Your task to perform on an android device: toggle pop-ups in chrome Image 0: 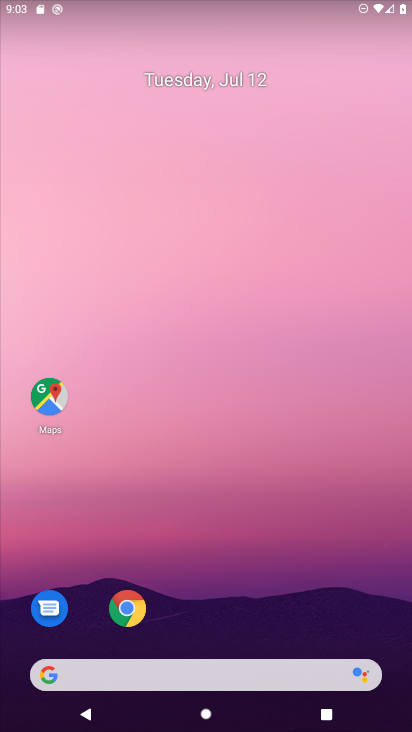
Step 0: click (133, 614)
Your task to perform on an android device: toggle pop-ups in chrome Image 1: 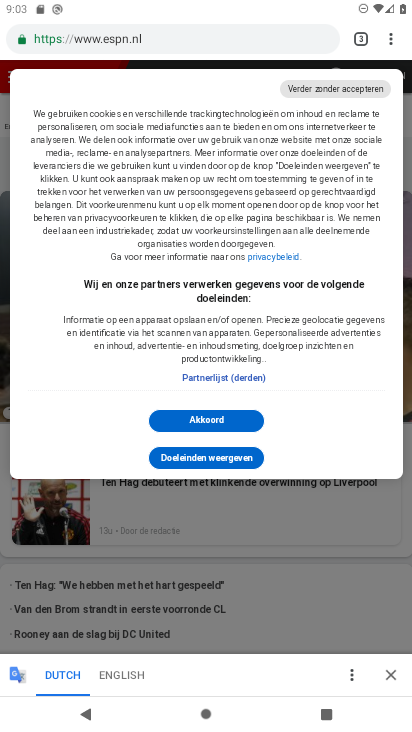
Step 1: click (397, 29)
Your task to perform on an android device: toggle pop-ups in chrome Image 2: 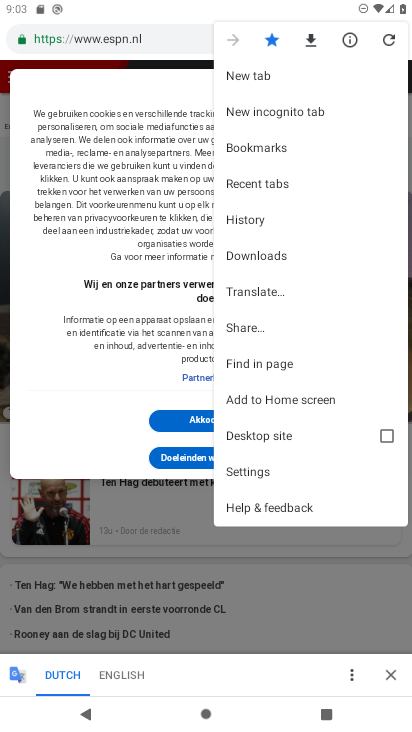
Step 2: click (297, 471)
Your task to perform on an android device: toggle pop-ups in chrome Image 3: 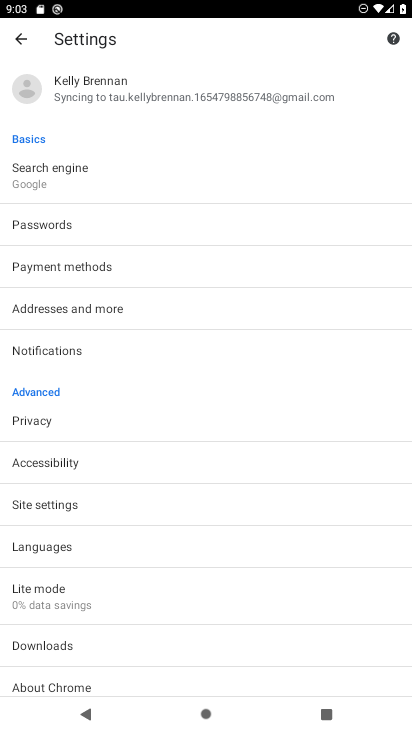
Step 3: drag from (122, 674) to (164, 270)
Your task to perform on an android device: toggle pop-ups in chrome Image 4: 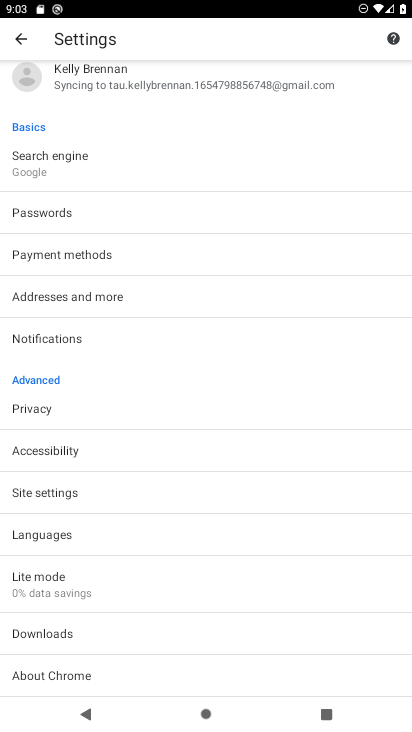
Step 4: click (96, 492)
Your task to perform on an android device: toggle pop-ups in chrome Image 5: 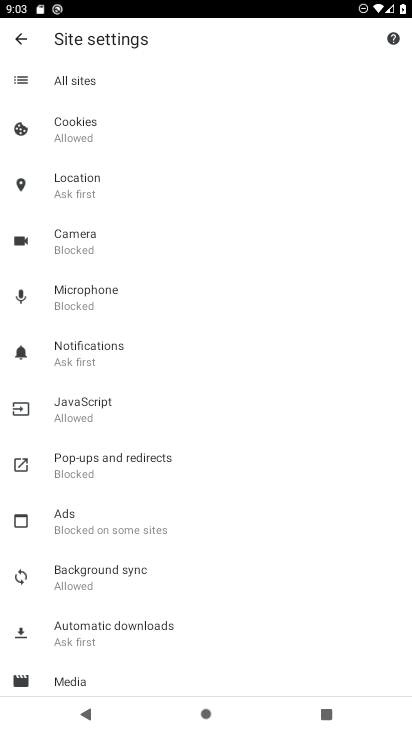
Step 5: click (170, 467)
Your task to perform on an android device: toggle pop-ups in chrome Image 6: 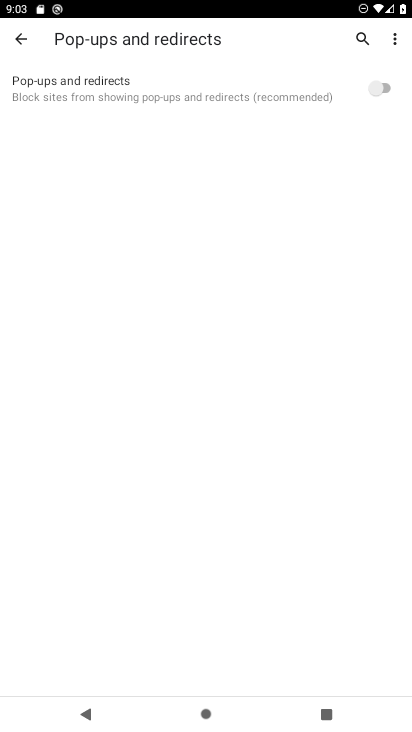
Step 6: click (389, 81)
Your task to perform on an android device: toggle pop-ups in chrome Image 7: 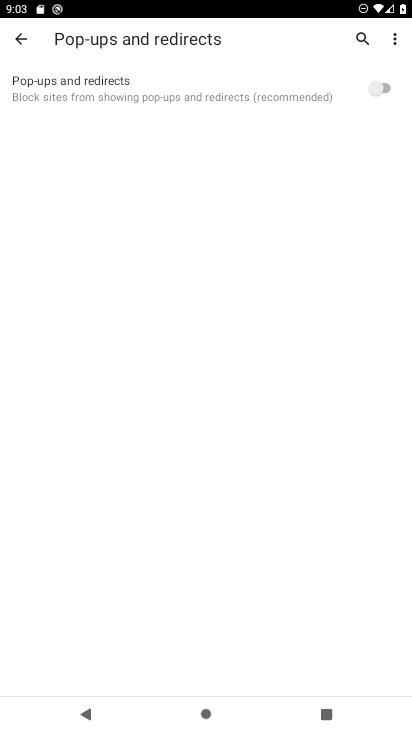
Step 7: click (389, 81)
Your task to perform on an android device: toggle pop-ups in chrome Image 8: 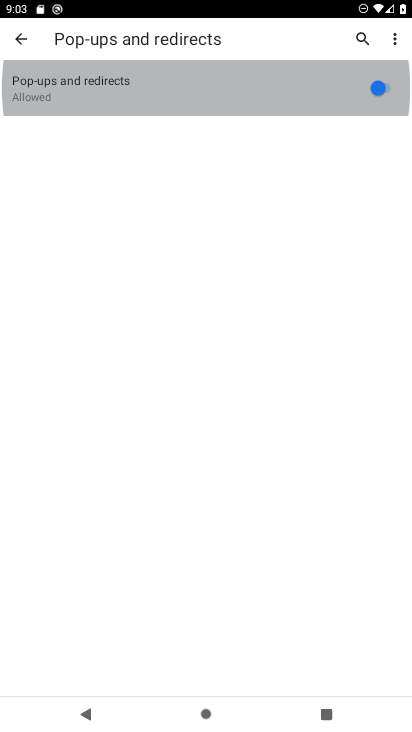
Step 8: click (389, 81)
Your task to perform on an android device: toggle pop-ups in chrome Image 9: 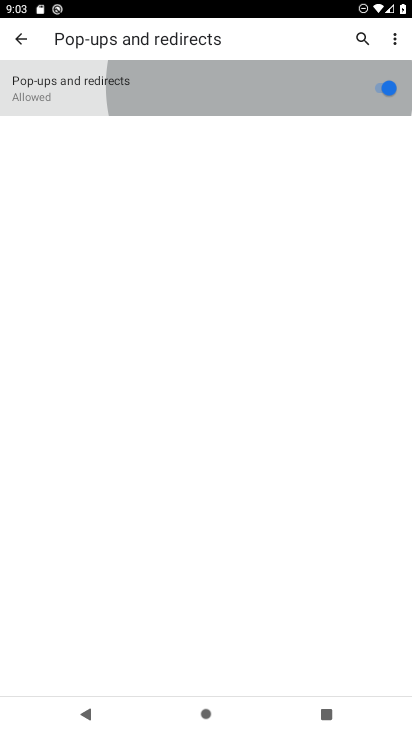
Step 9: click (389, 81)
Your task to perform on an android device: toggle pop-ups in chrome Image 10: 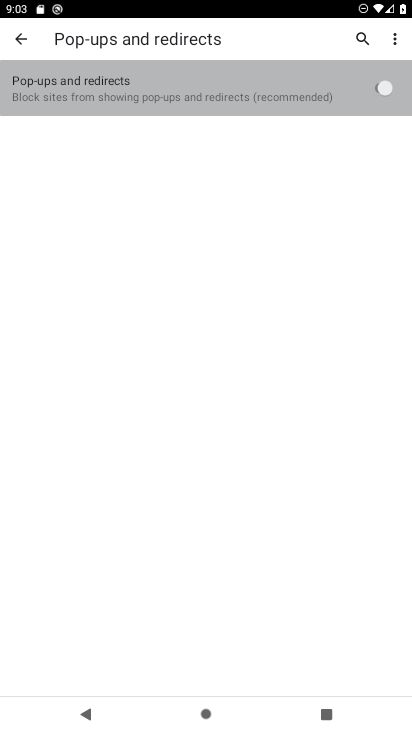
Step 10: click (389, 81)
Your task to perform on an android device: toggle pop-ups in chrome Image 11: 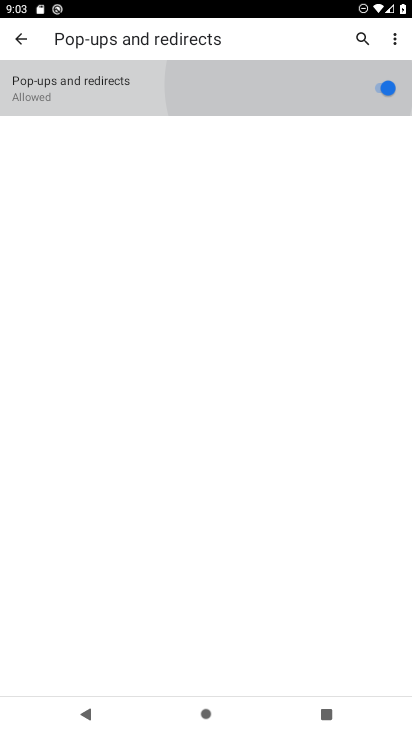
Step 11: click (389, 81)
Your task to perform on an android device: toggle pop-ups in chrome Image 12: 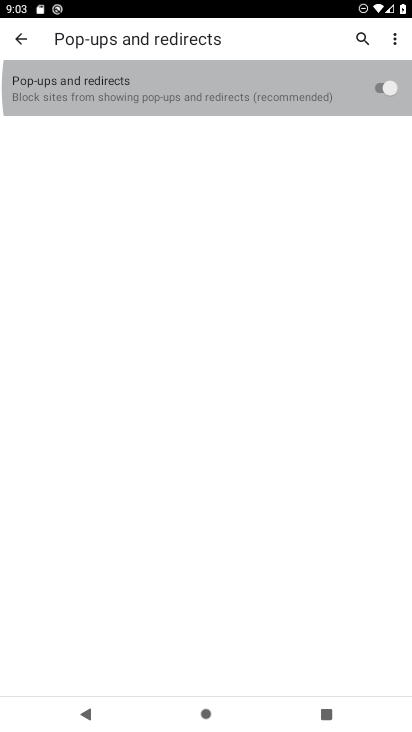
Step 12: click (389, 81)
Your task to perform on an android device: toggle pop-ups in chrome Image 13: 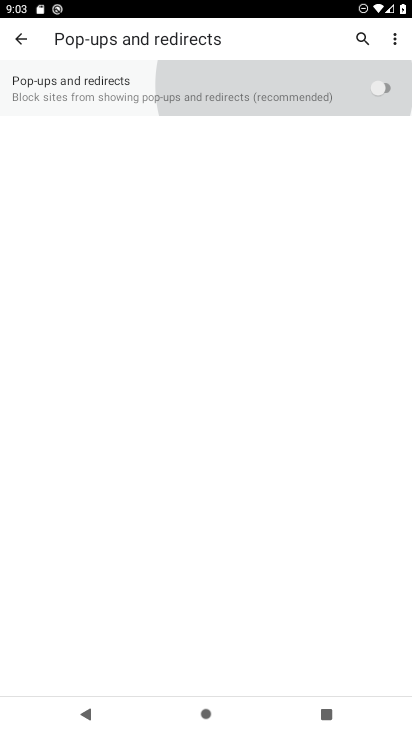
Step 13: click (389, 81)
Your task to perform on an android device: toggle pop-ups in chrome Image 14: 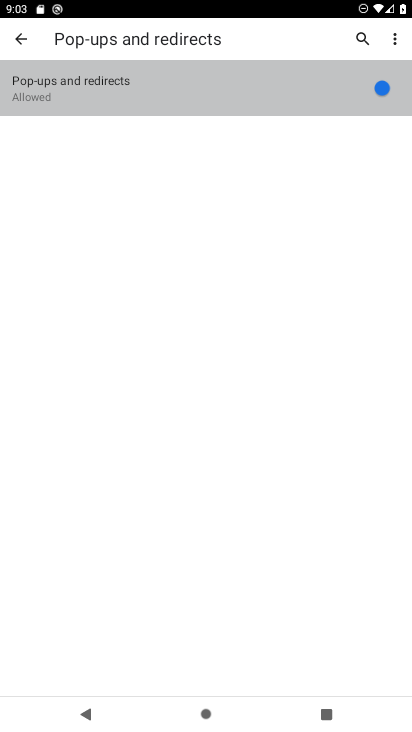
Step 14: click (389, 81)
Your task to perform on an android device: toggle pop-ups in chrome Image 15: 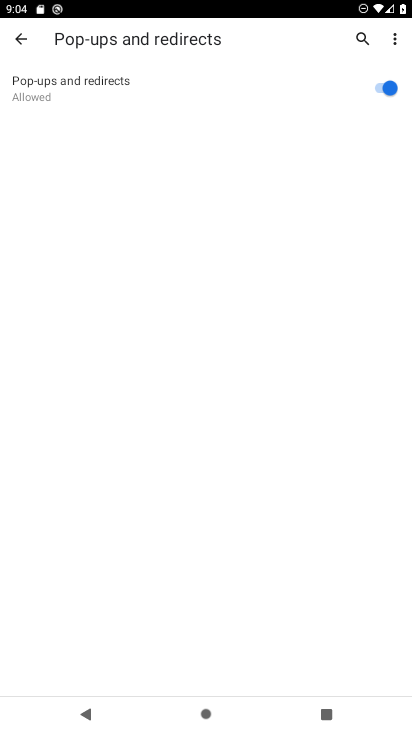
Step 15: task complete